Your task to perform on an android device: see creations saved in the google photos Image 0: 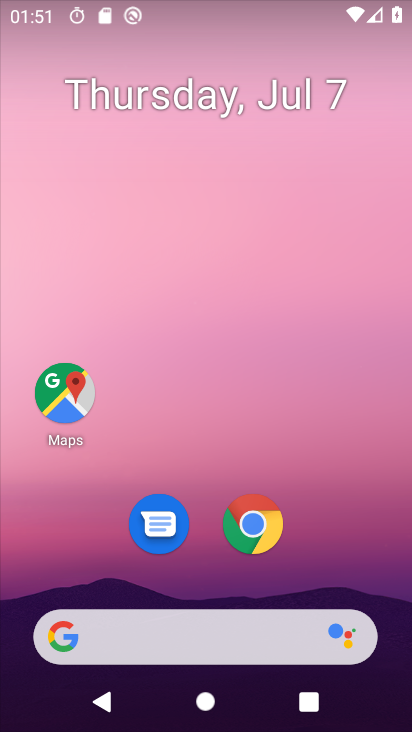
Step 0: drag from (347, 542) to (278, 55)
Your task to perform on an android device: see creations saved in the google photos Image 1: 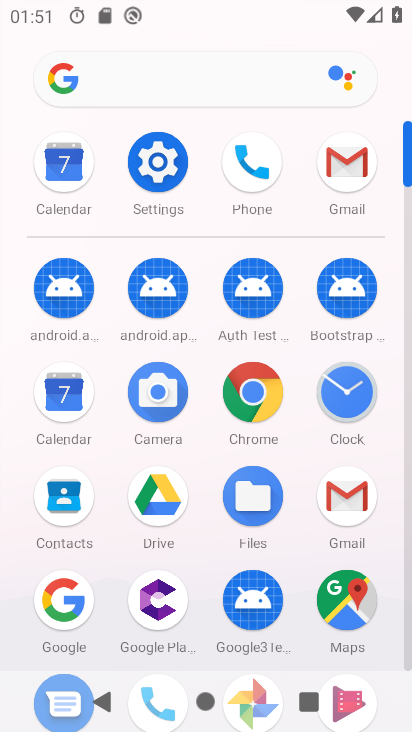
Step 1: drag from (206, 480) to (231, 154)
Your task to perform on an android device: see creations saved in the google photos Image 2: 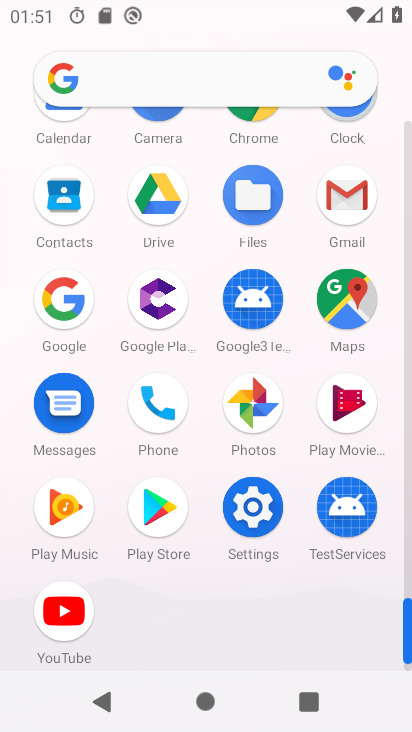
Step 2: click (253, 406)
Your task to perform on an android device: see creations saved in the google photos Image 3: 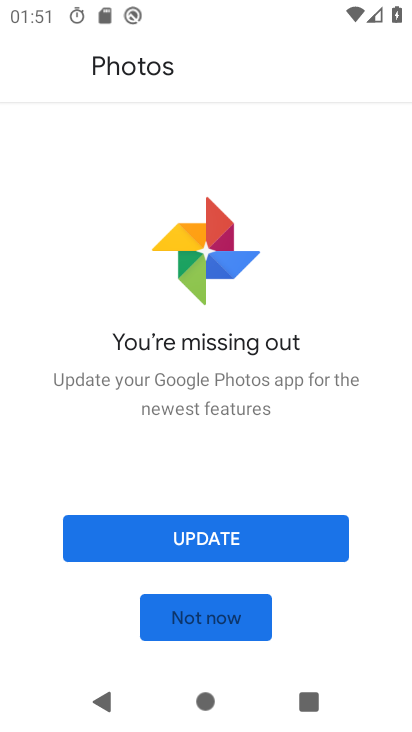
Step 3: click (255, 611)
Your task to perform on an android device: see creations saved in the google photos Image 4: 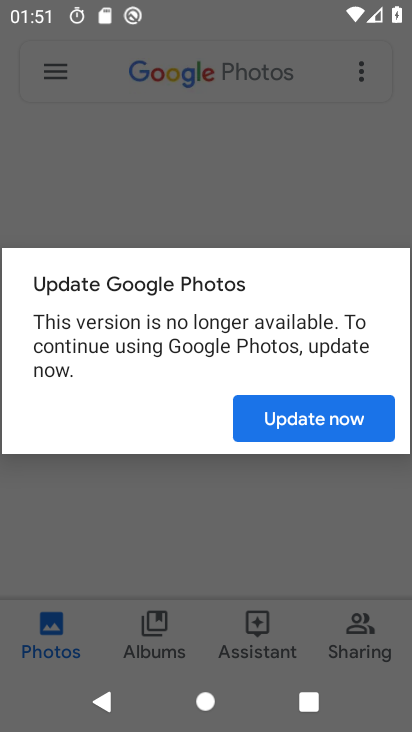
Step 4: click (327, 415)
Your task to perform on an android device: see creations saved in the google photos Image 5: 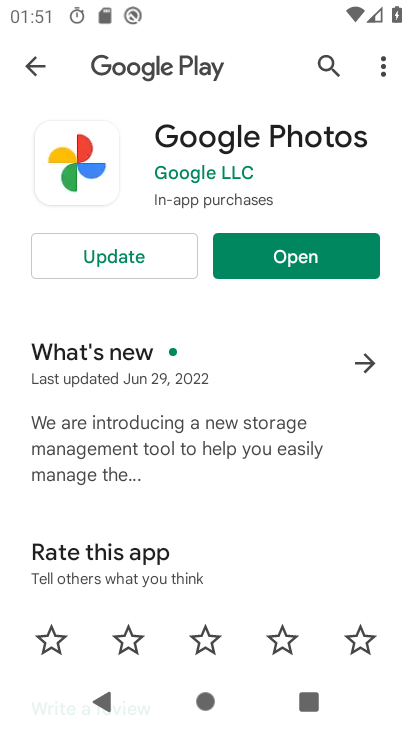
Step 5: click (309, 253)
Your task to perform on an android device: see creations saved in the google photos Image 6: 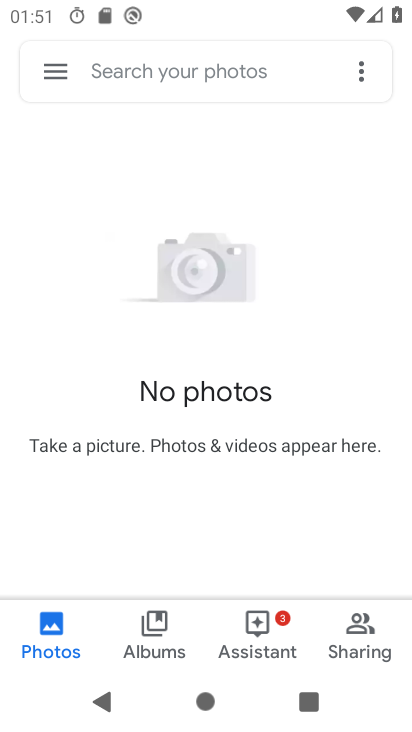
Step 6: click (266, 76)
Your task to perform on an android device: see creations saved in the google photos Image 7: 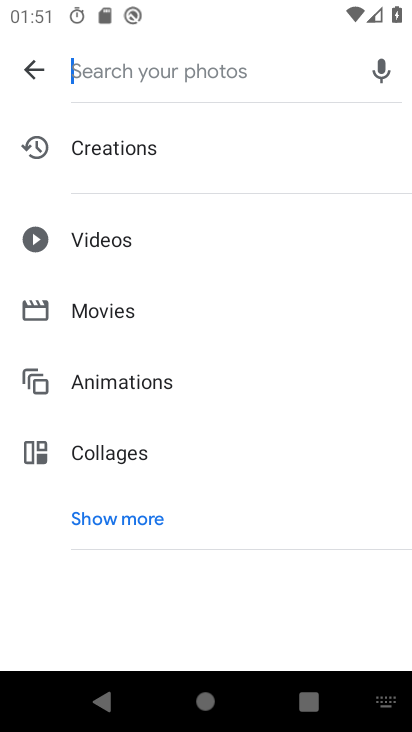
Step 7: click (121, 517)
Your task to perform on an android device: see creations saved in the google photos Image 8: 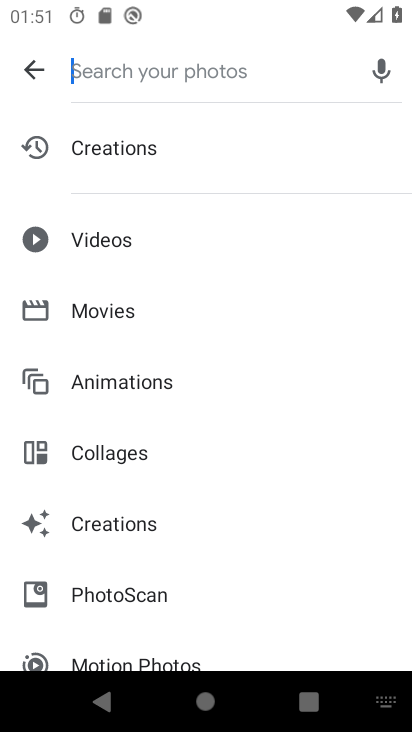
Step 8: click (119, 524)
Your task to perform on an android device: see creations saved in the google photos Image 9: 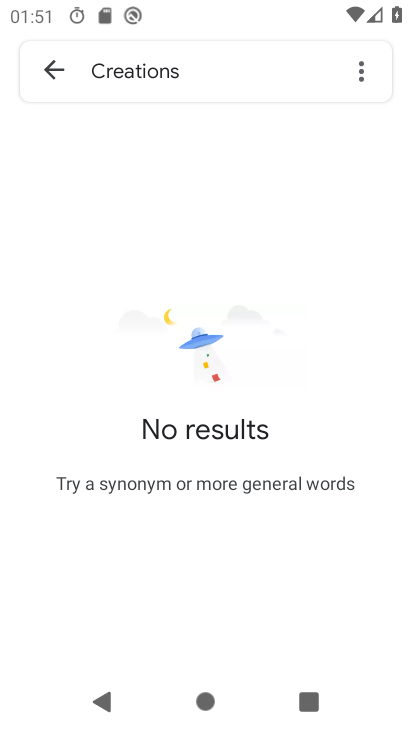
Step 9: task complete